Your task to perform on an android device: toggle data saver in the chrome app Image 0: 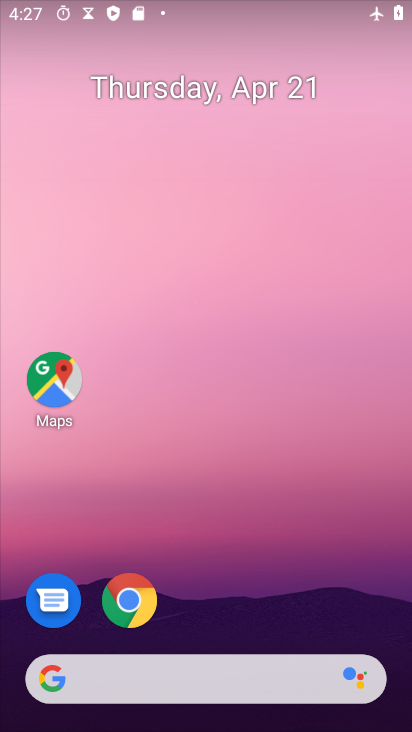
Step 0: click (129, 598)
Your task to perform on an android device: toggle data saver in the chrome app Image 1: 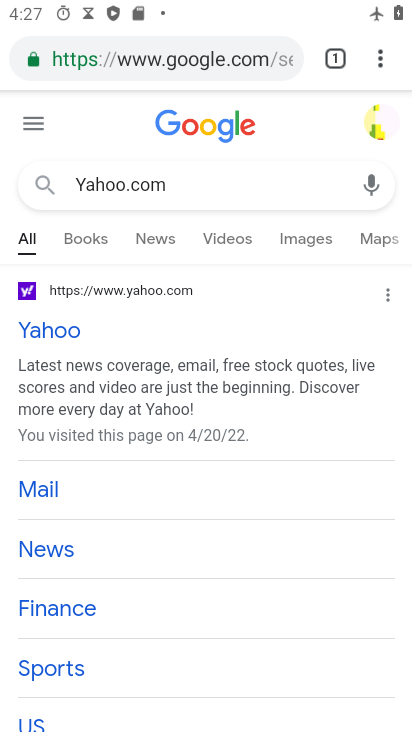
Step 1: click (389, 60)
Your task to perform on an android device: toggle data saver in the chrome app Image 2: 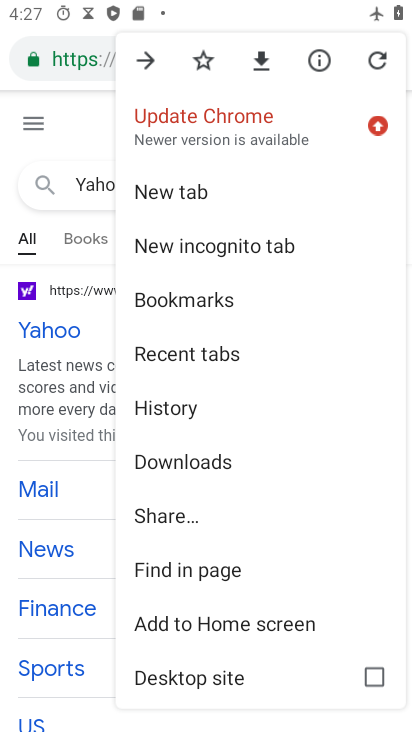
Step 2: drag from (242, 443) to (272, 343)
Your task to perform on an android device: toggle data saver in the chrome app Image 3: 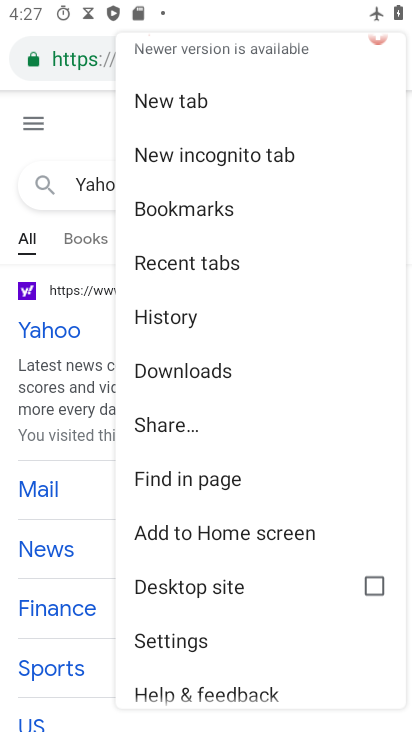
Step 3: drag from (272, 444) to (282, 360)
Your task to perform on an android device: toggle data saver in the chrome app Image 4: 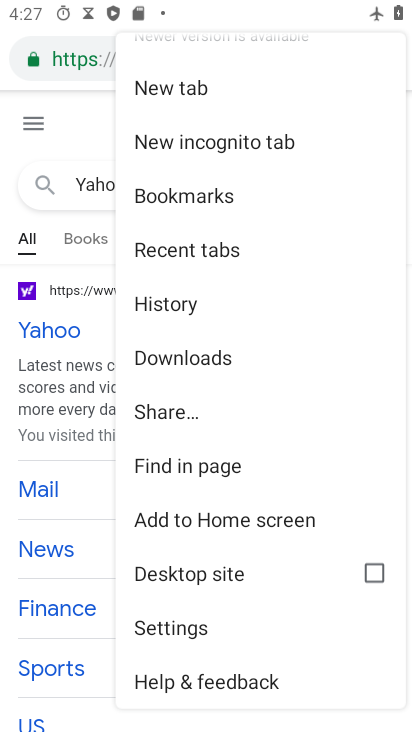
Step 4: click (176, 633)
Your task to perform on an android device: toggle data saver in the chrome app Image 5: 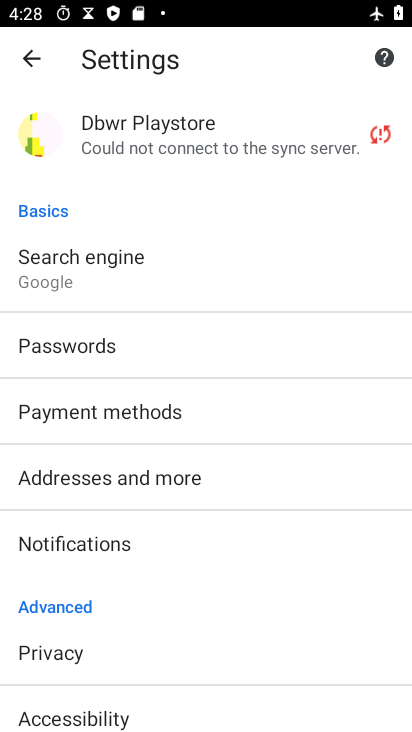
Step 5: drag from (160, 615) to (183, 462)
Your task to perform on an android device: toggle data saver in the chrome app Image 6: 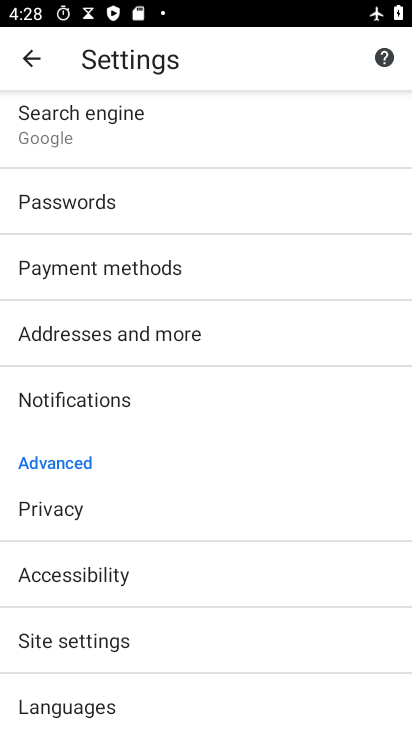
Step 6: drag from (165, 563) to (201, 437)
Your task to perform on an android device: toggle data saver in the chrome app Image 7: 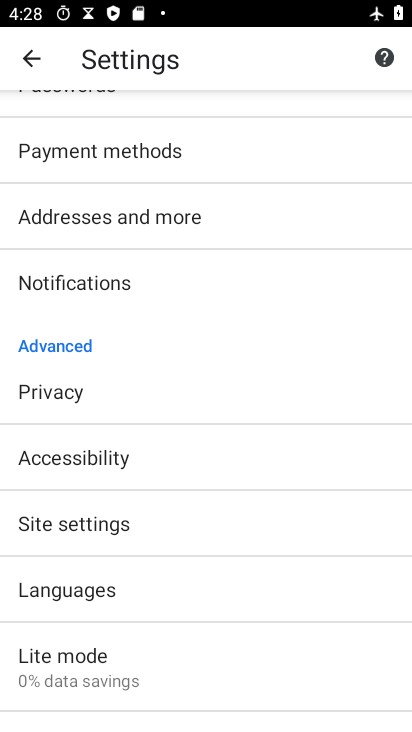
Step 7: click (54, 643)
Your task to perform on an android device: toggle data saver in the chrome app Image 8: 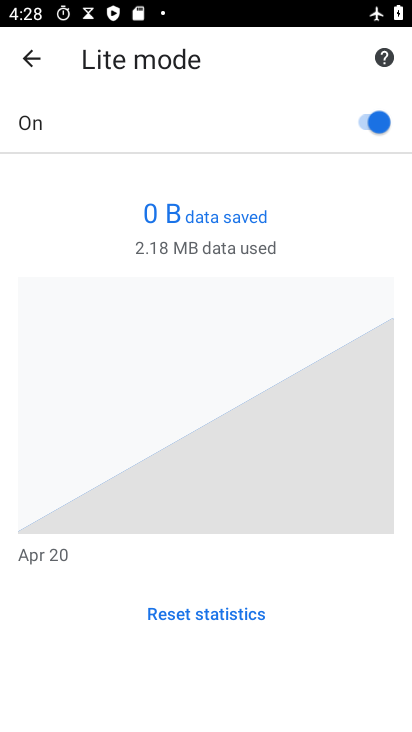
Step 8: click (377, 118)
Your task to perform on an android device: toggle data saver in the chrome app Image 9: 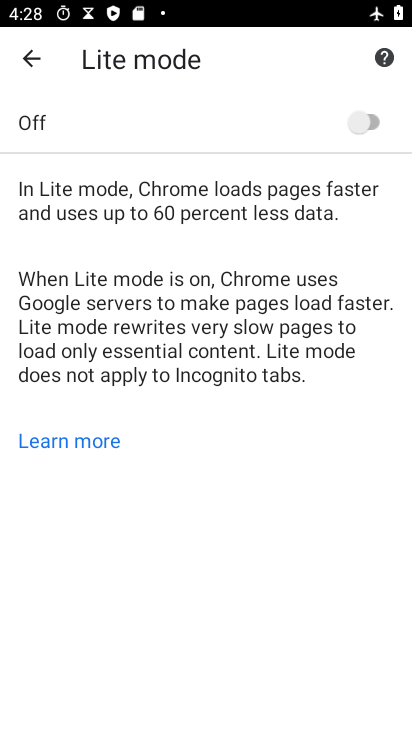
Step 9: task complete